Your task to perform on an android device: change the clock style Image 0: 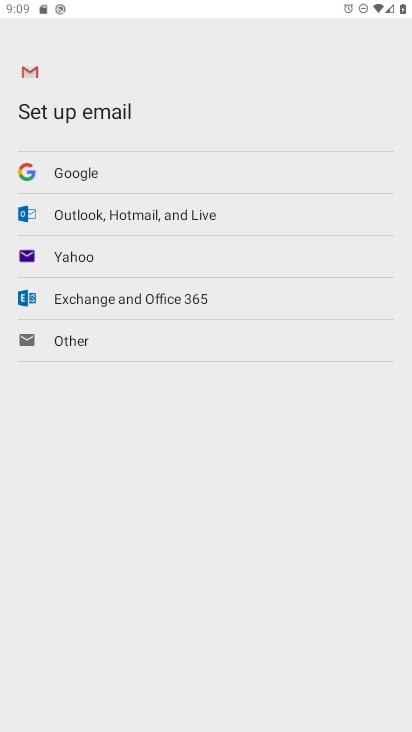
Step 0: press home button
Your task to perform on an android device: change the clock style Image 1: 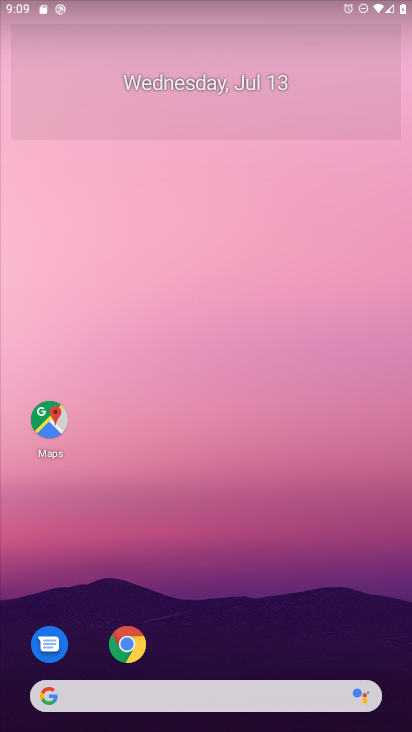
Step 1: drag from (253, 450) to (227, 141)
Your task to perform on an android device: change the clock style Image 2: 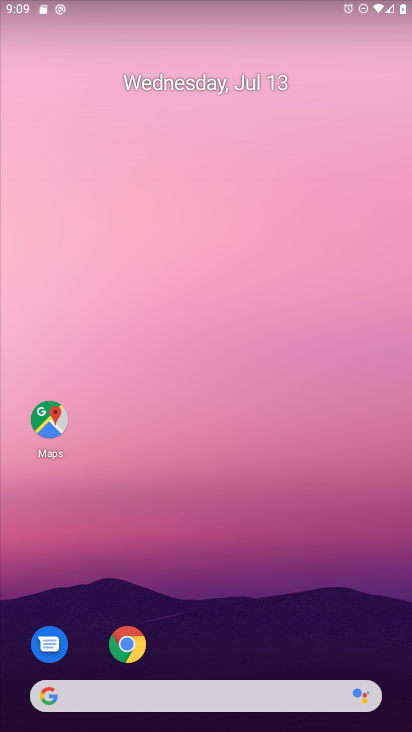
Step 2: drag from (202, 570) to (229, 55)
Your task to perform on an android device: change the clock style Image 3: 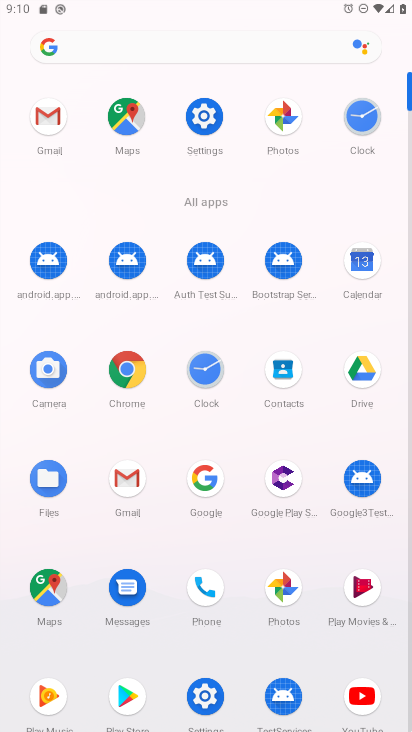
Step 3: click (354, 114)
Your task to perform on an android device: change the clock style Image 4: 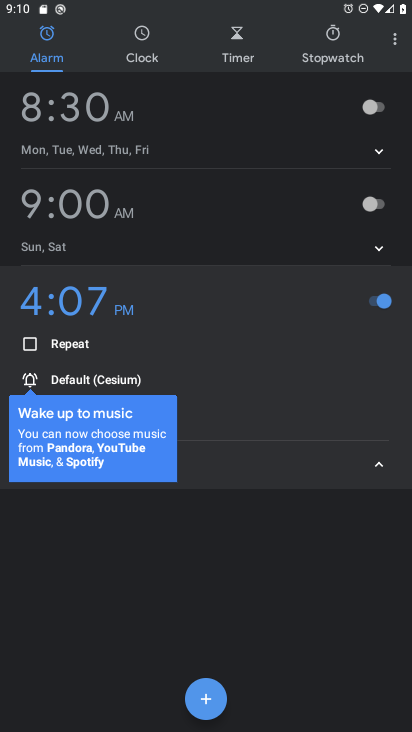
Step 4: click (392, 35)
Your task to perform on an android device: change the clock style Image 5: 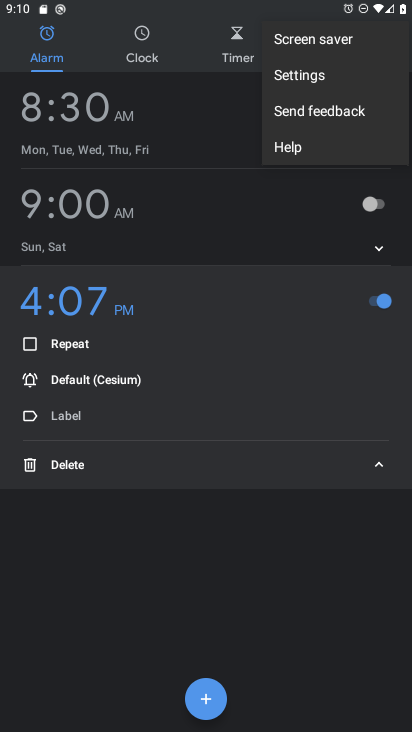
Step 5: click (352, 79)
Your task to perform on an android device: change the clock style Image 6: 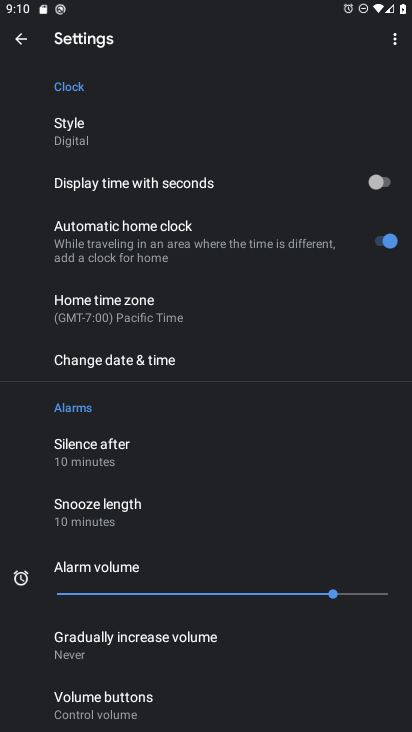
Step 6: click (76, 138)
Your task to perform on an android device: change the clock style Image 7: 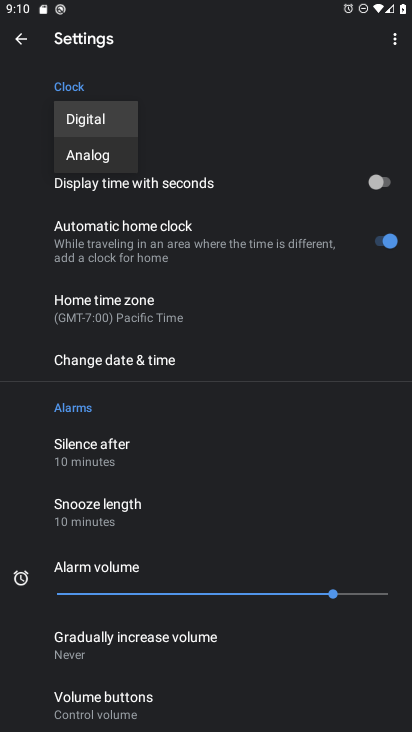
Step 7: click (100, 150)
Your task to perform on an android device: change the clock style Image 8: 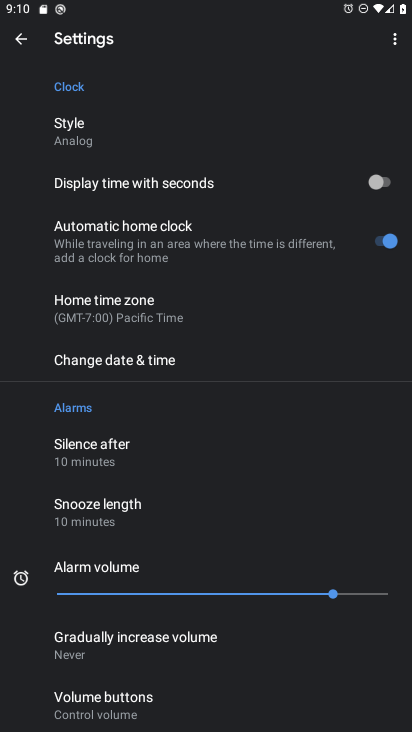
Step 8: task complete